Your task to perform on an android device: check battery use Image 0: 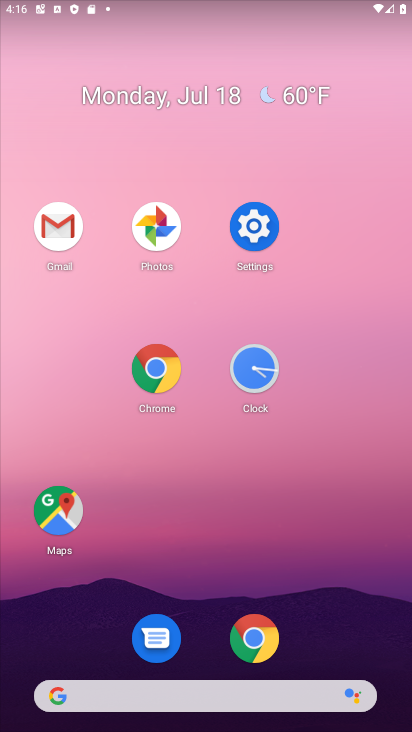
Step 0: click (239, 222)
Your task to perform on an android device: check battery use Image 1: 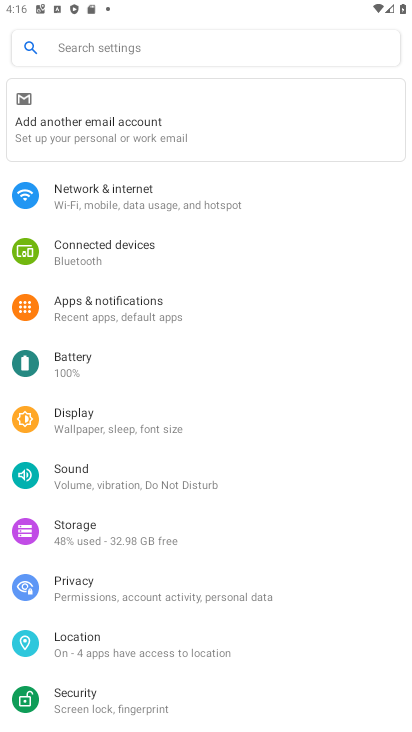
Step 1: click (109, 363)
Your task to perform on an android device: check battery use Image 2: 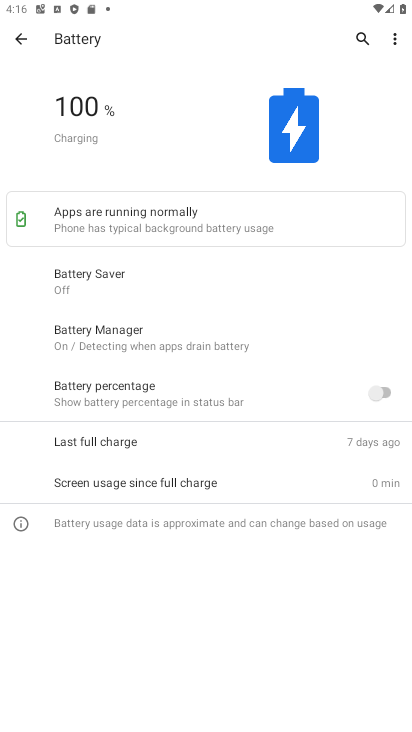
Step 2: click (393, 39)
Your task to perform on an android device: check battery use Image 3: 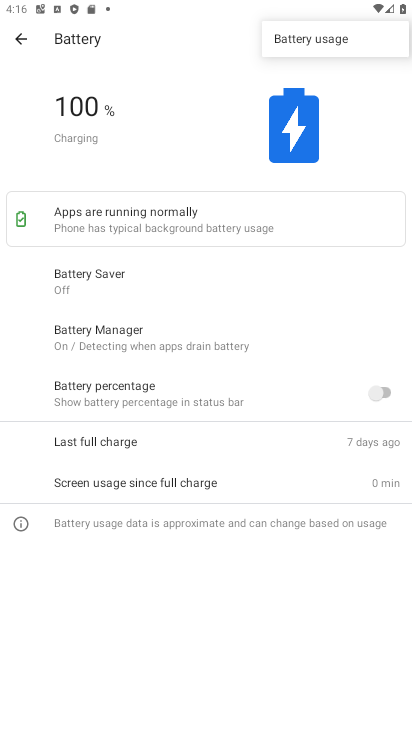
Step 3: click (316, 37)
Your task to perform on an android device: check battery use Image 4: 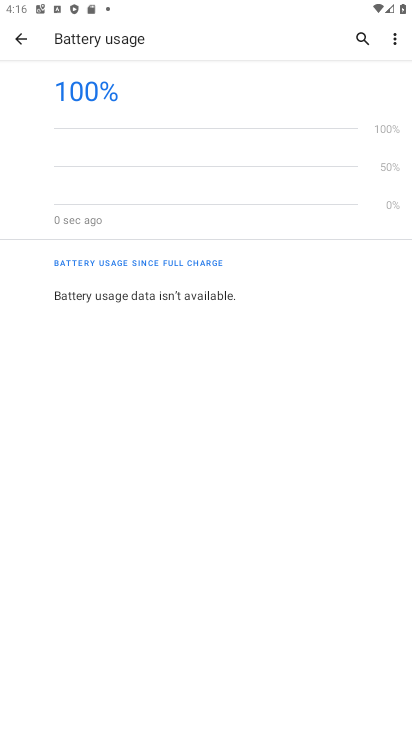
Step 4: task complete